Your task to perform on an android device: delete browsing data in the chrome app Image 0: 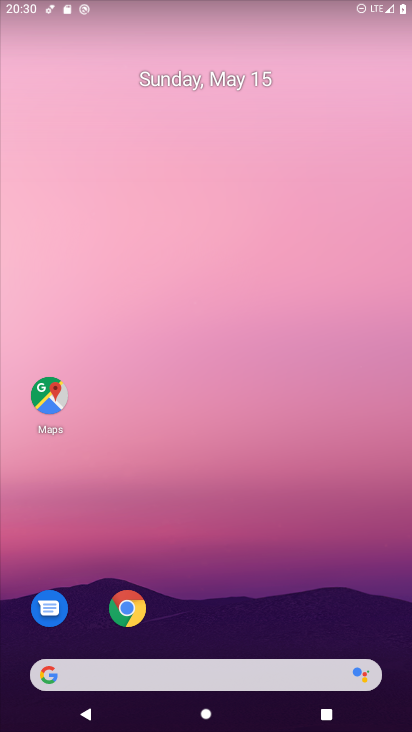
Step 0: click (134, 610)
Your task to perform on an android device: delete browsing data in the chrome app Image 1: 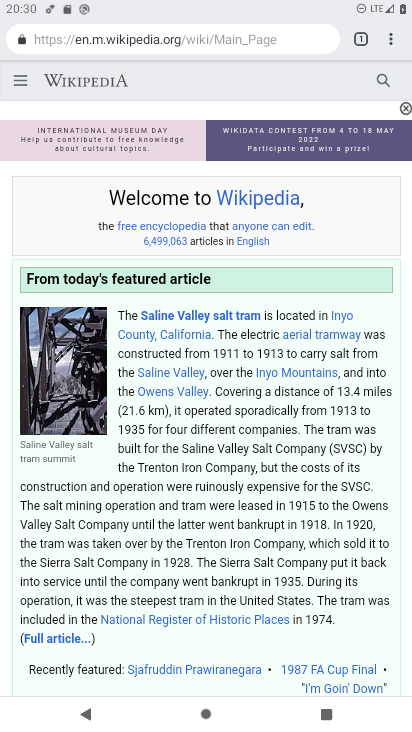
Step 1: click (384, 42)
Your task to perform on an android device: delete browsing data in the chrome app Image 2: 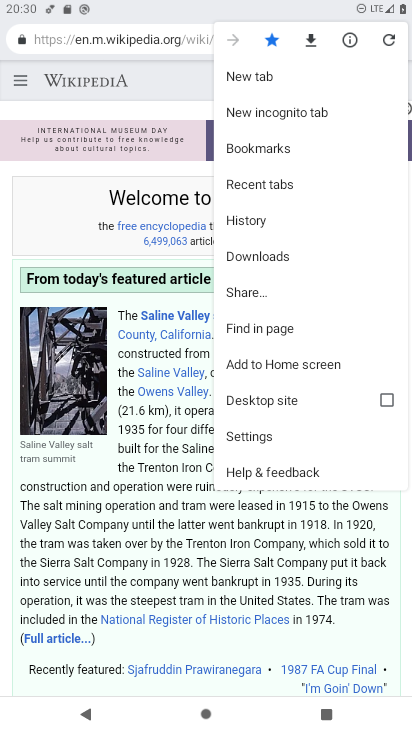
Step 2: click (266, 438)
Your task to perform on an android device: delete browsing data in the chrome app Image 3: 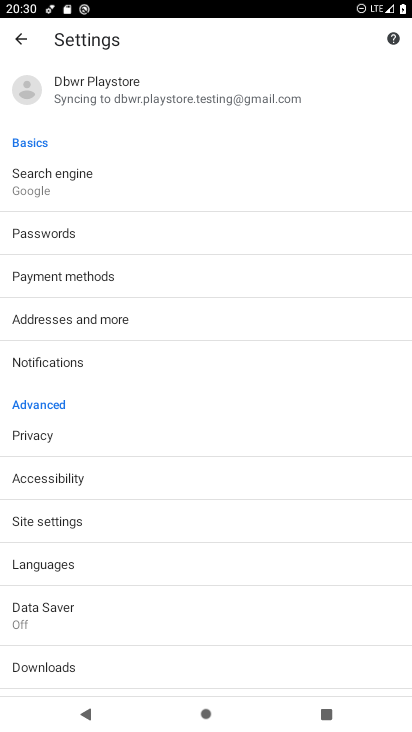
Step 3: drag from (131, 612) to (171, 238)
Your task to perform on an android device: delete browsing data in the chrome app Image 4: 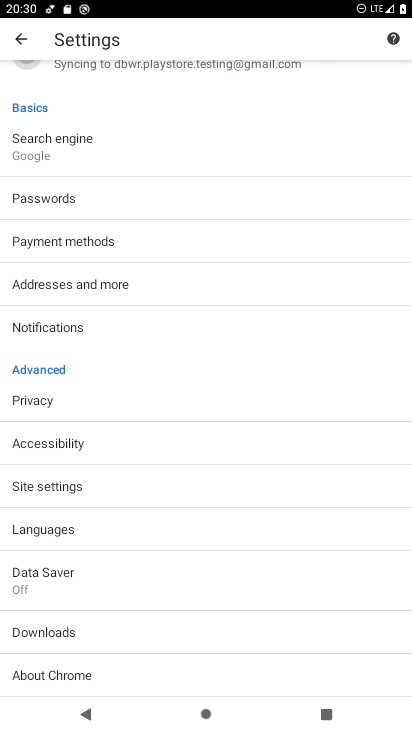
Step 4: drag from (51, 396) to (176, 266)
Your task to perform on an android device: delete browsing data in the chrome app Image 5: 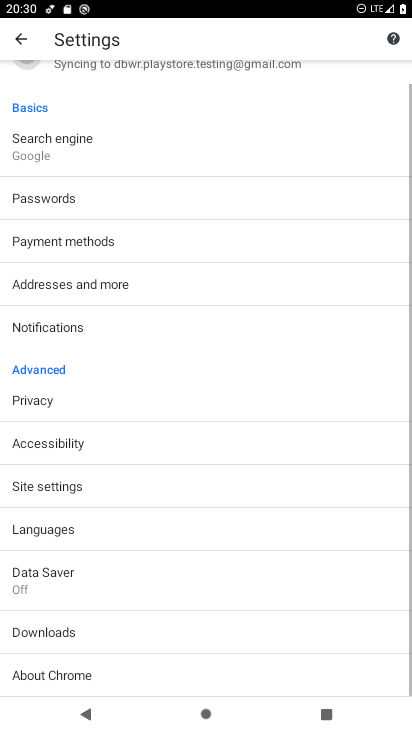
Step 5: click (11, 406)
Your task to perform on an android device: delete browsing data in the chrome app Image 6: 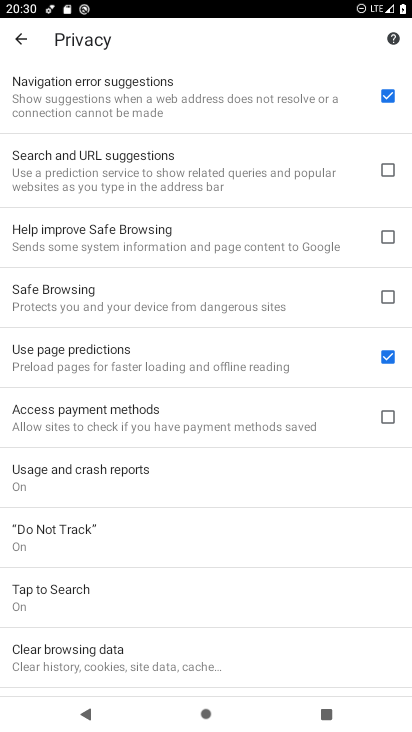
Step 6: drag from (207, 485) to (207, 288)
Your task to perform on an android device: delete browsing data in the chrome app Image 7: 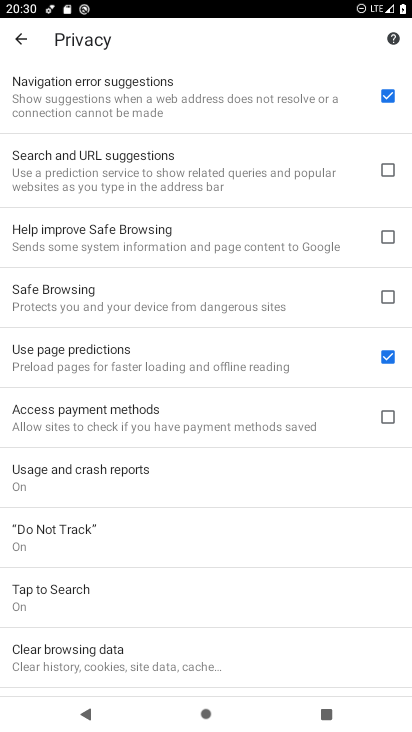
Step 7: click (136, 656)
Your task to perform on an android device: delete browsing data in the chrome app Image 8: 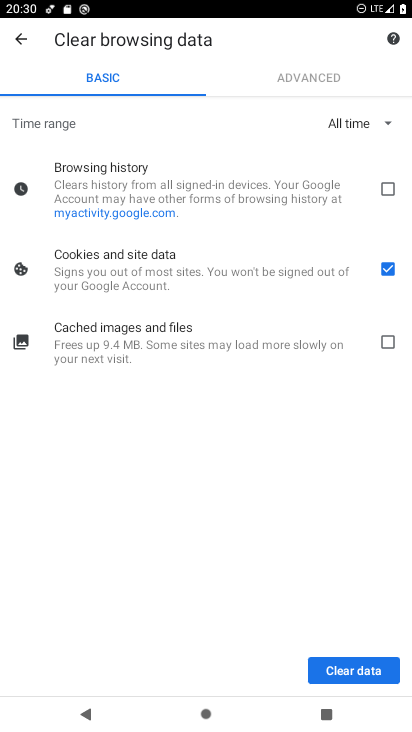
Step 8: click (389, 181)
Your task to perform on an android device: delete browsing data in the chrome app Image 9: 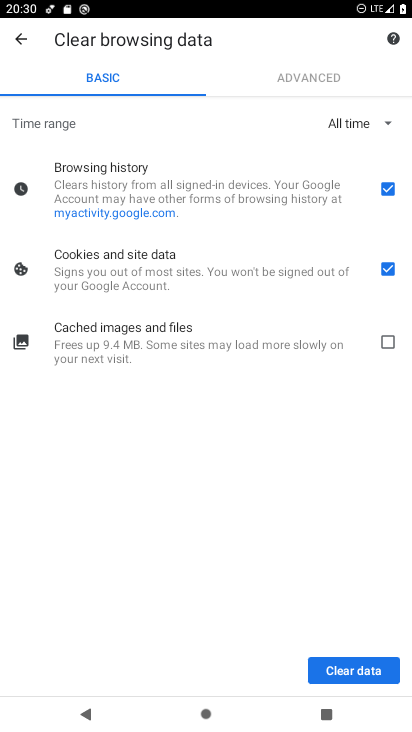
Step 9: click (384, 262)
Your task to perform on an android device: delete browsing data in the chrome app Image 10: 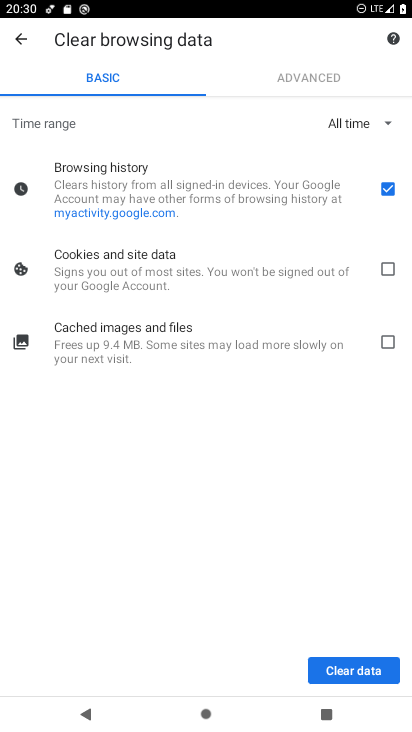
Step 10: click (359, 674)
Your task to perform on an android device: delete browsing data in the chrome app Image 11: 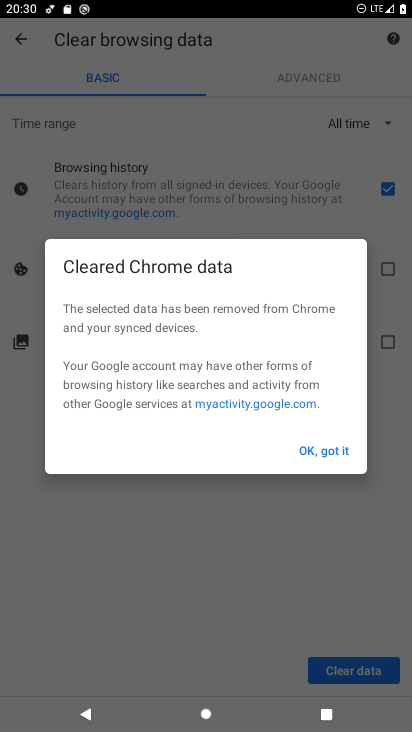
Step 11: click (310, 456)
Your task to perform on an android device: delete browsing data in the chrome app Image 12: 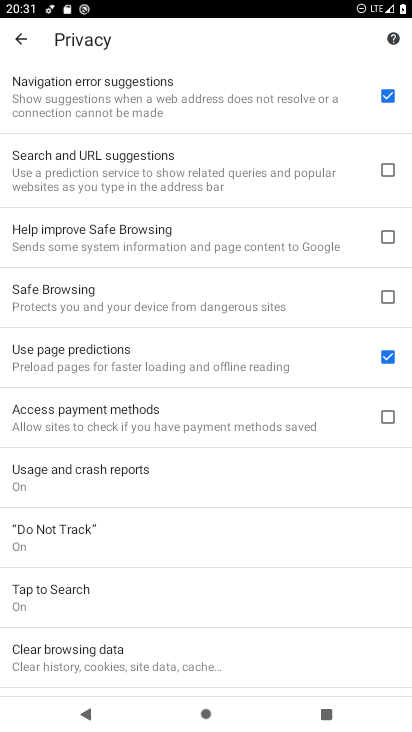
Step 12: task complete